Your task to perform on an android device: Open calendar and show me the fourth week of next month Image 0: 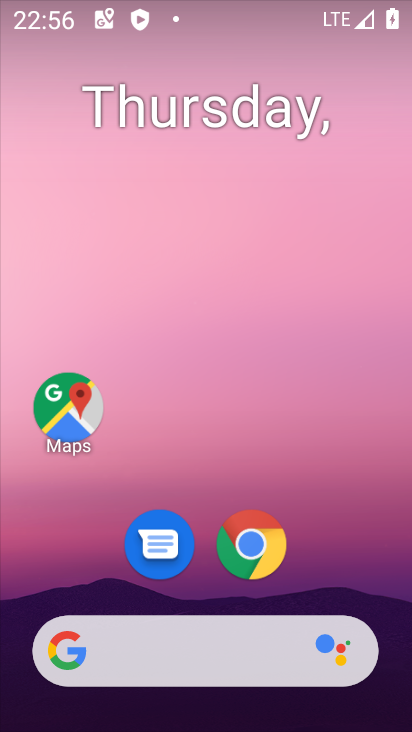
Step 0: drag from (261, 451) to (115, 160)
Your task to perform on an android device: Open calendar and show me the fourth week of next month Image 1: 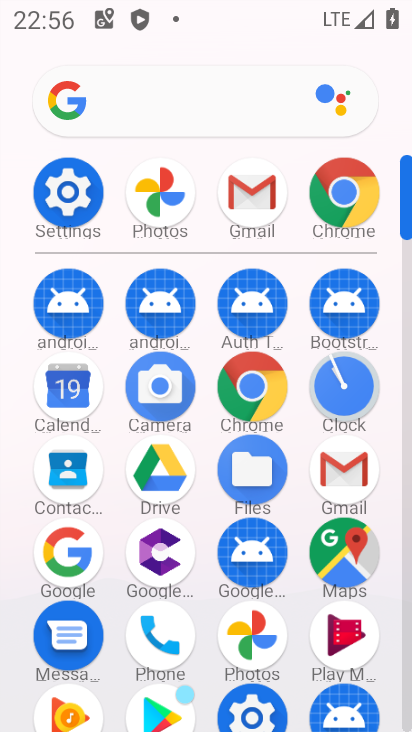
Step 1: click (52, 391)
Your task to perform on an android device: Open calendar and show me the fourth week of next month Image 2: 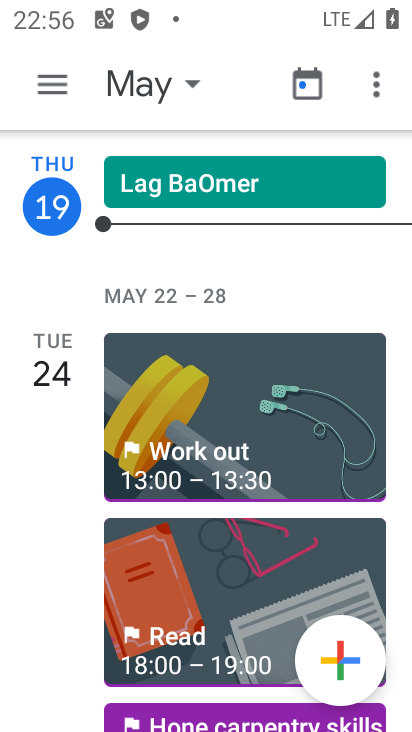
Step 2: click (155, 84)
Your task to perform on an android device: Open calendar and show me the fourth week of next month Image 3: 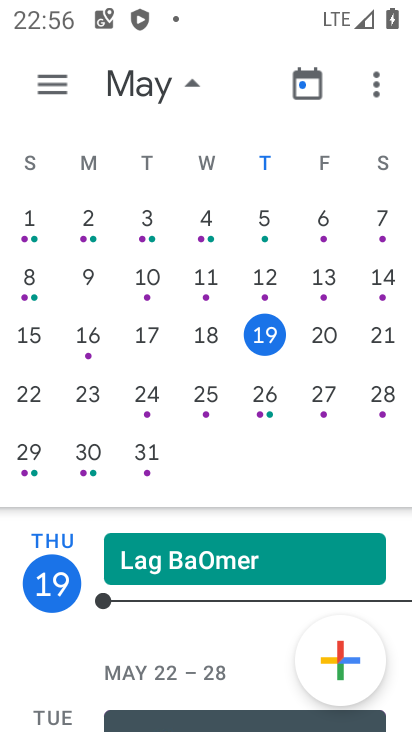
Step 3: drag from (352, 323) to (39, 364)
Your task to perform on an android device: Open calendar and show me the fourth week of next month Image 4: 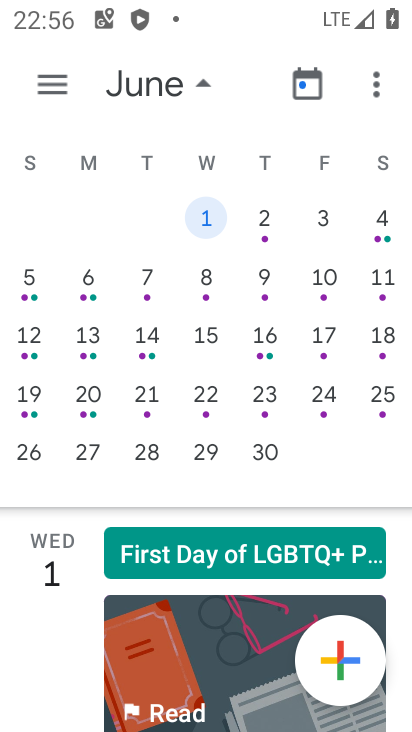
Step 4: click (23, 407)
Your task to perform on an android device: Open calendar and show me the fourth week of next month Image 5: 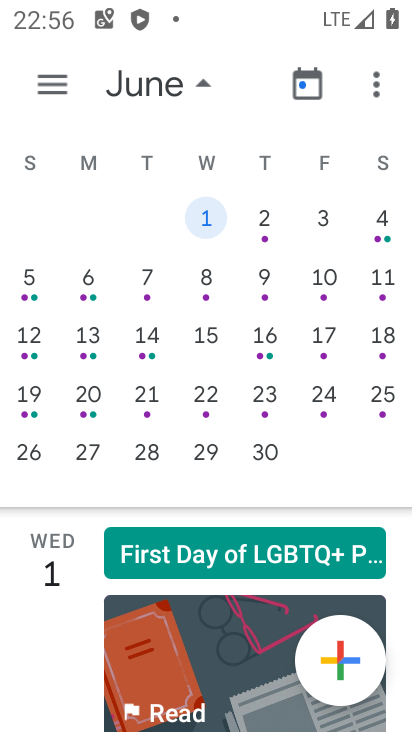
Step 5: click (51, 88)
Your task to perform on an android device: Open calendar and show me the fourth week of next month Image 6: 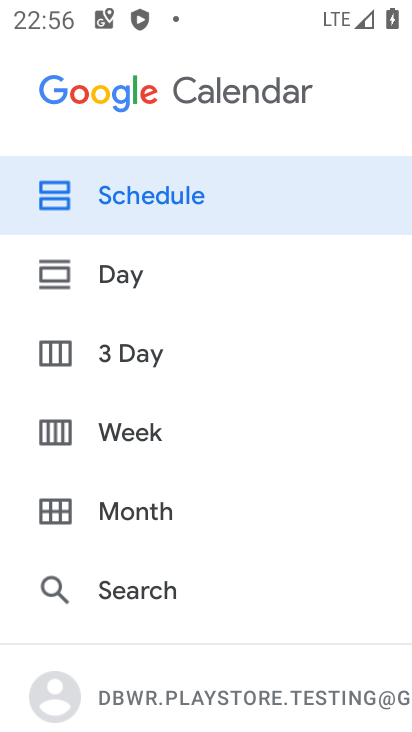
Step 6: click (129, 428)
Your task to perform on an android device: Open calendar and show me the fourth week of next month Image 7: 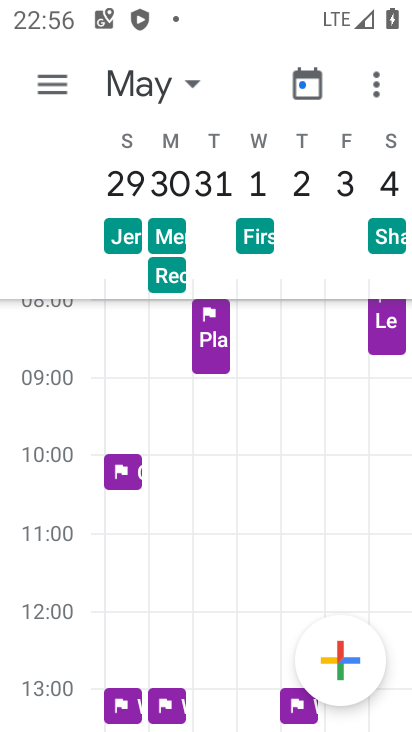
Step 7: click (148, 89)
Your task to perform on an android device: Open calendar and show me the fourth week of next month Image 8: 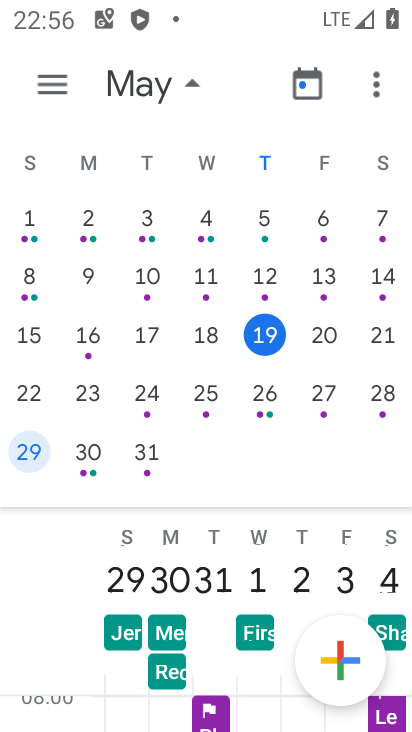
Step 8: drag from (361, 361) to (37, 370)
Your task to perform on an android device: Open calendar and show me the fourth week of next month Image 9: 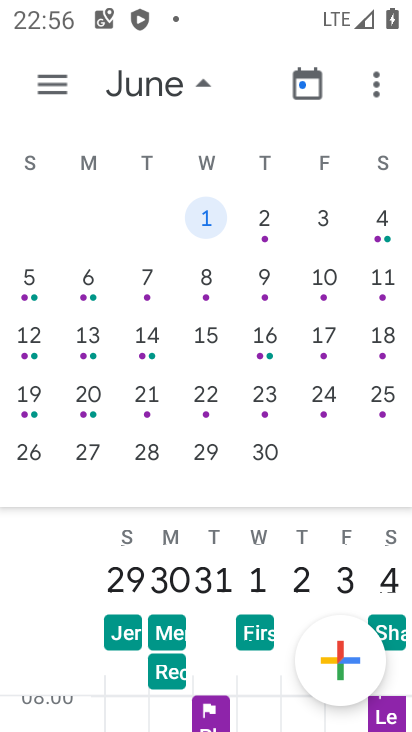
Step 9: click (31, 400)
Your task to perform on an android device: Open calendar and show me the fourth week of next month Image 10: 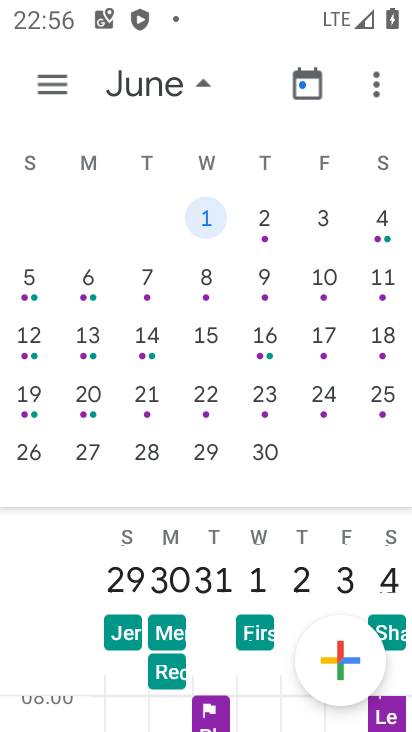
Step 10: click (34, 397)
Your task to perform on an android device: Open calendar and show me the fourth week of next month Image 11: 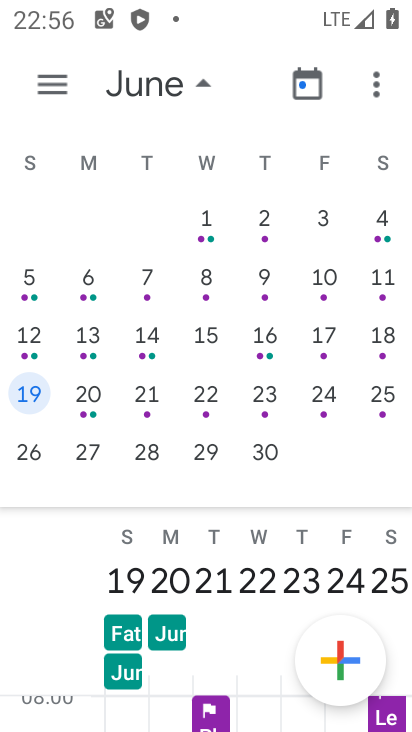
Step 11: click (187, 93)
Your task to perform on an android device: Open calendar and show me the fourth week of next month Image 12: 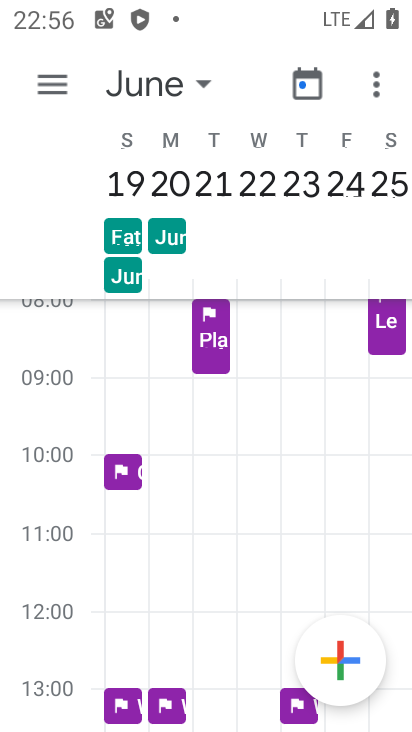
Step 12: task complete